Your task to perform on an android device: Open the map Image 0: 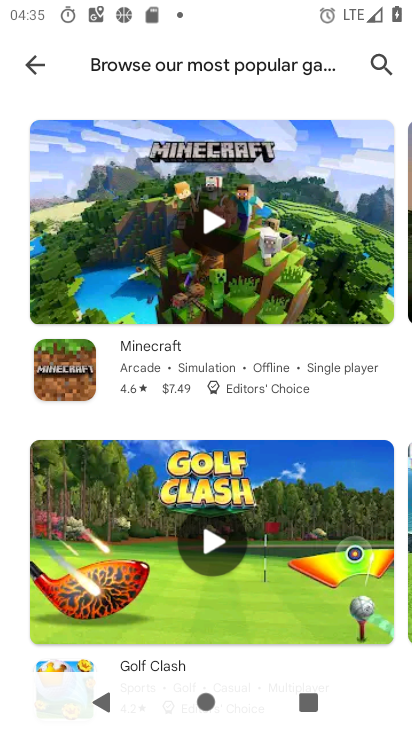
Step 0: press back button
Your task to perform on an android device: Open the map Image 1: 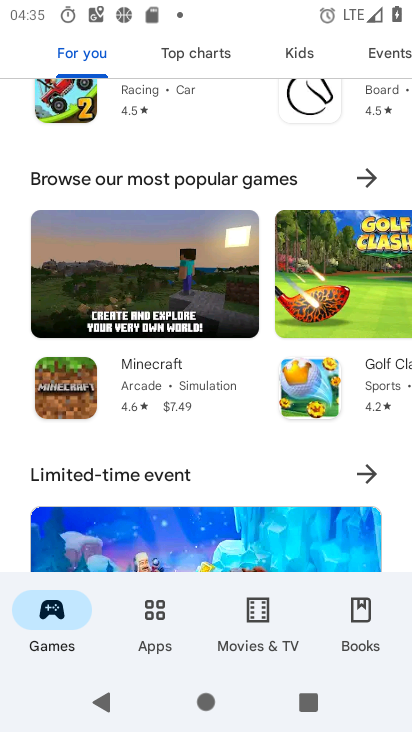
Step 1: press back button
Your task to perform on an android device: Open the map Image 2: 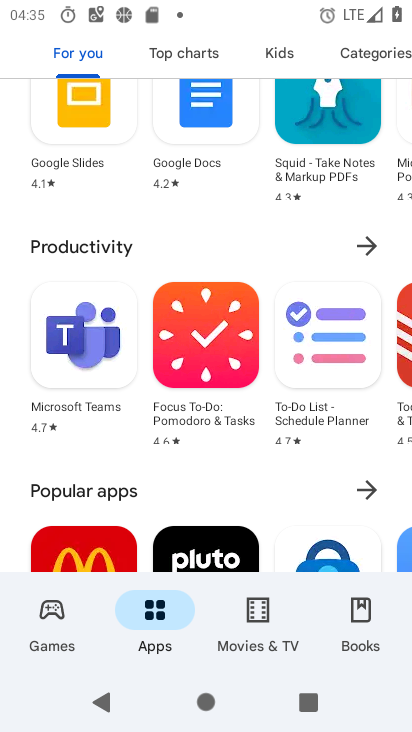
Step 2: press back button
Your task to perform on an android device: Open the map Image 3: 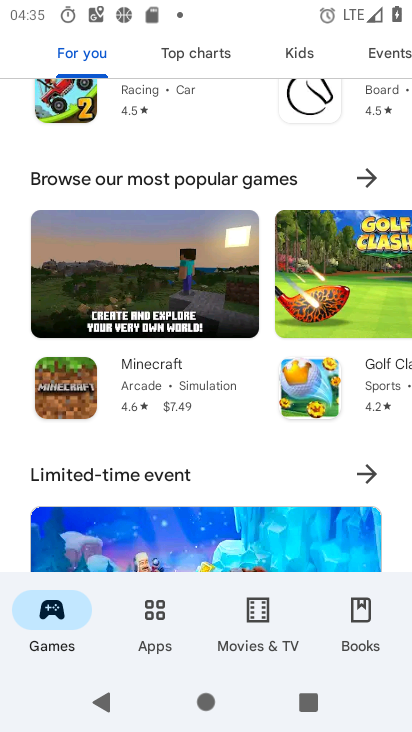
Step 3: press back button
Your task to perform on an android device: Open the map Image 4: 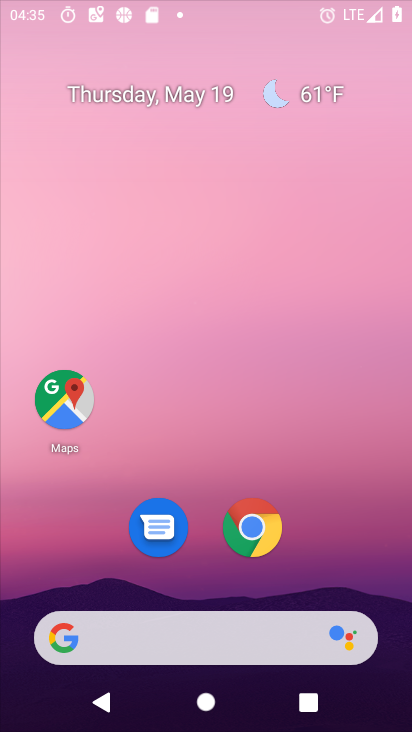
Step 4: click (56, 397)
Your task to perform on an android device: Open the map Image 5: 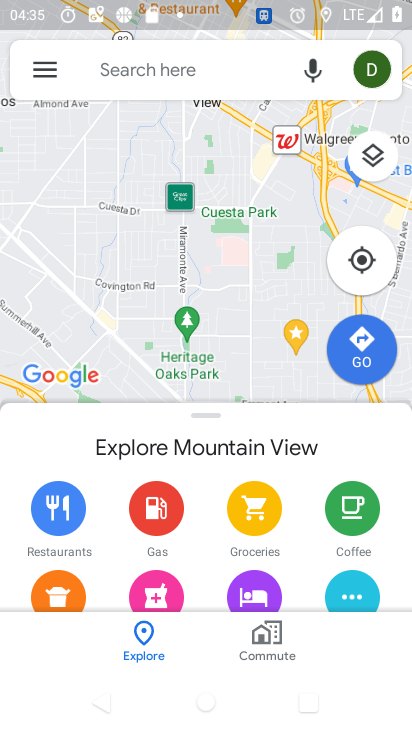
Step 5: task complete